Your task to perform on an android device: Clear all items from cart on newegg. Search for logitech g pro on newegg, select the first entry, and add it to the cart. Image 0: 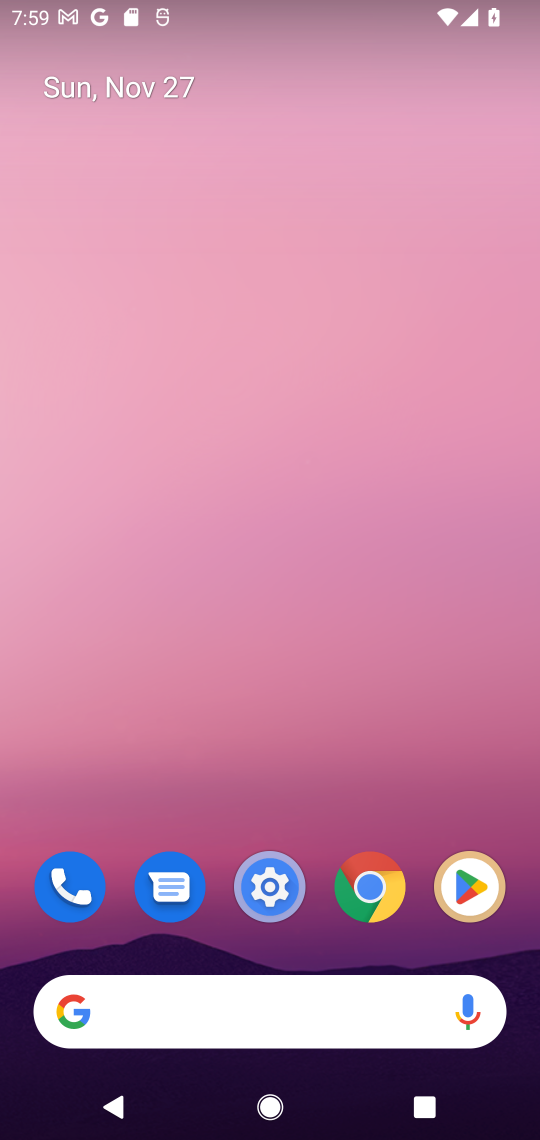
Step 0: click (175, 1031)
Your task to perform on an android device: Clear all items from cart on newegg. Search for logitech g pro on newegg, select the first entry, and add it to the cart. Image 1: 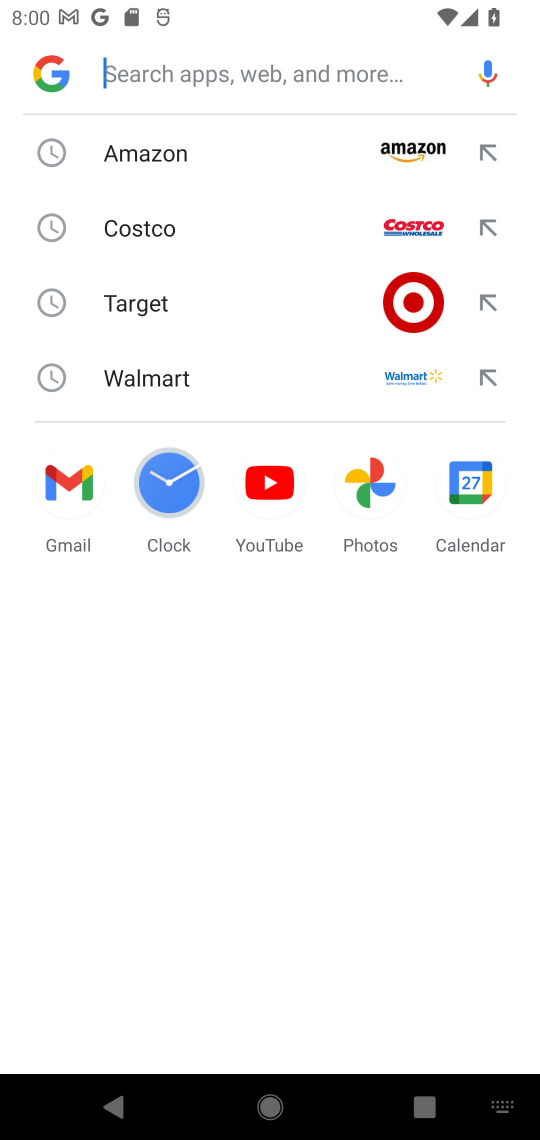
Step 1: type "newegg"
Your task to perform on an android device: Clear all items from cart on newegg. Search for logitech g pro on newegg, select the first entry, and add it to the cart. Image 2: 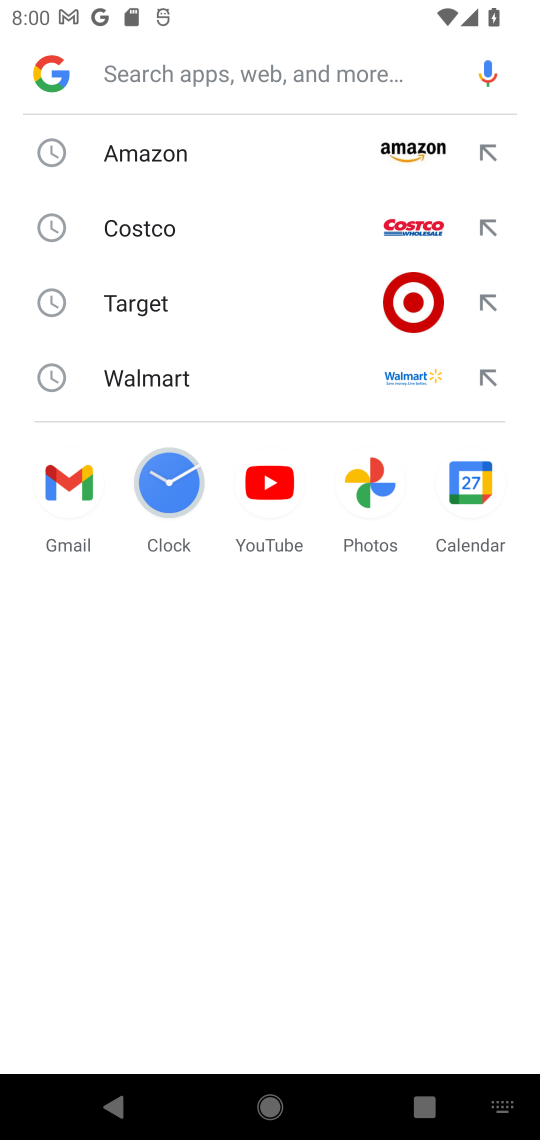
Step 2: click (148, 141)
Your task to perform on an android device: Clear all items from cart on newegg. Search for logitech g pro on newegg, select the first entry, and add it to the cart. Image 3: 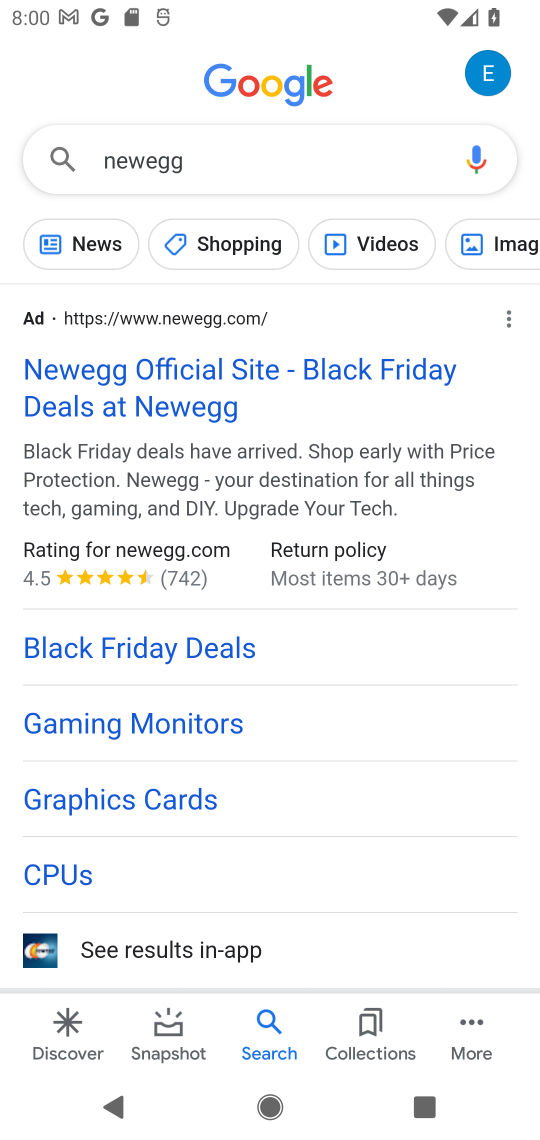
Step 3: click (175, 427)
Your task to perform on an android device: Clear all items from cart on newegg. Search for logitech g pro on newegg, select the first entry, and add it to the cart. Image 4: 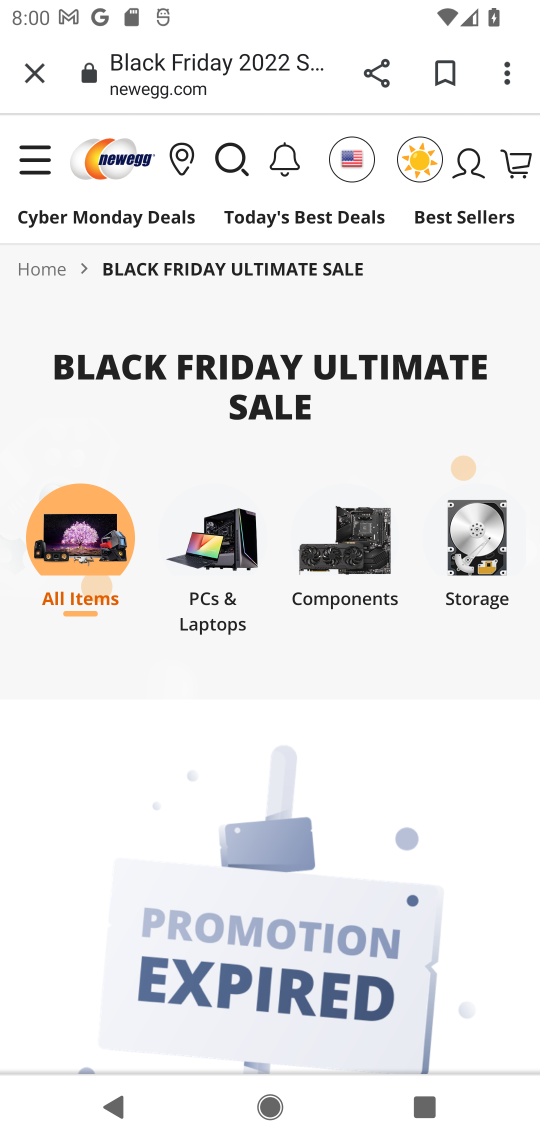
Step 4: task complete